Your task to perform on an android device: Open battery settings Image 0: 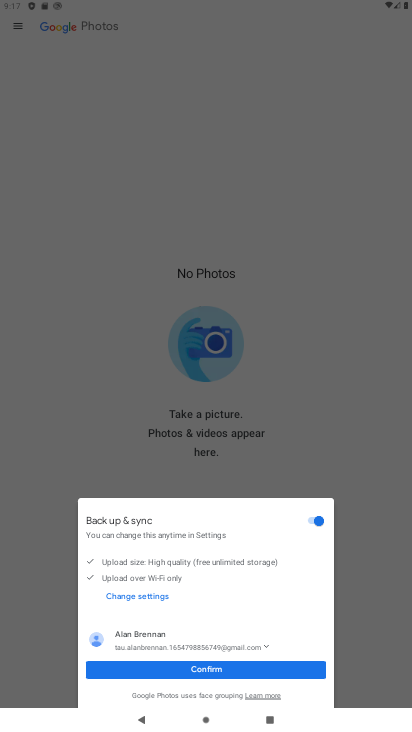
Step 0: press home button
Your task to perform on an android device: Open battery settings Image 1: 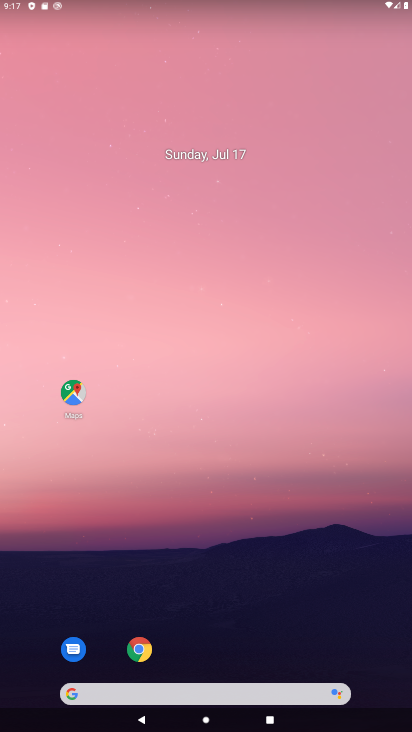
Step 1: drag from (12, 696) to (157, 123)
Your task to perform on an android device: Open battery settings Image 2: 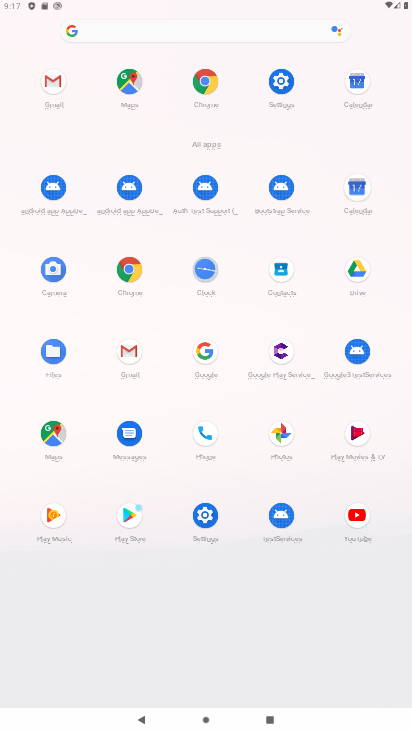
Step 2: click (203, 523)
Your task to perform on an android device: Open battery settings Image 3: 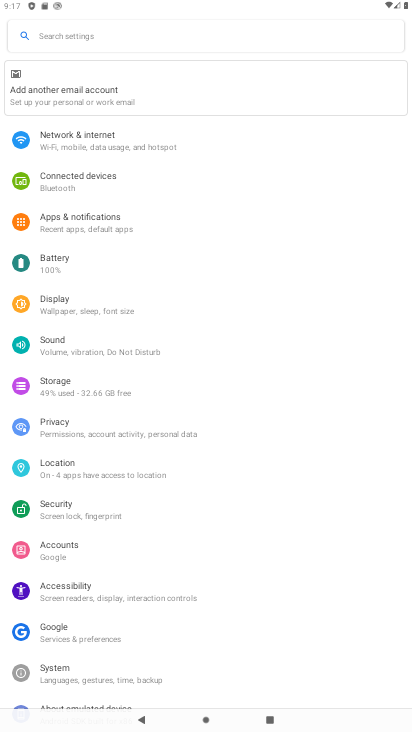
Step 3: click (74, 259)
Your task to perform on an android device: Open battery settings Image 4: 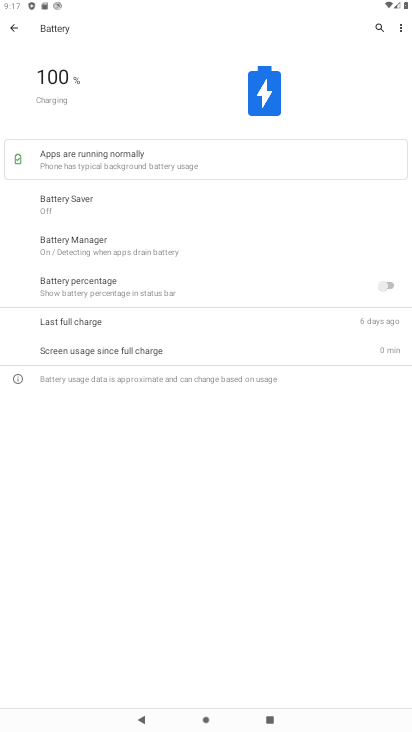
Step 4: task complete